Your task to perform on an android device: Go to accessibility settings Image 0: 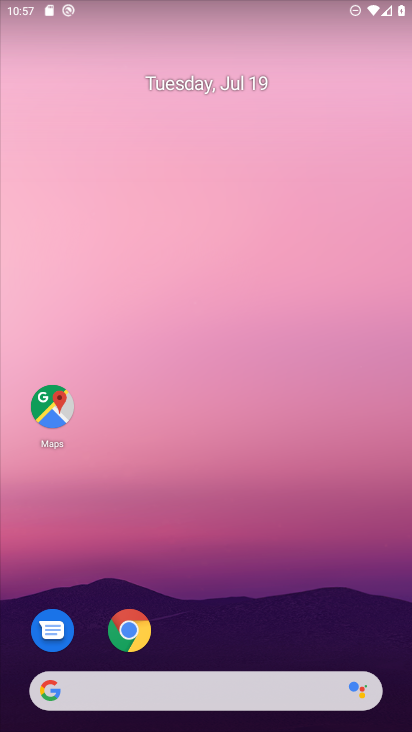
Step 0: drag from (209, 684) to (175, 277)
Your task to perform on an android device: Go to accessibility settings Image 1: 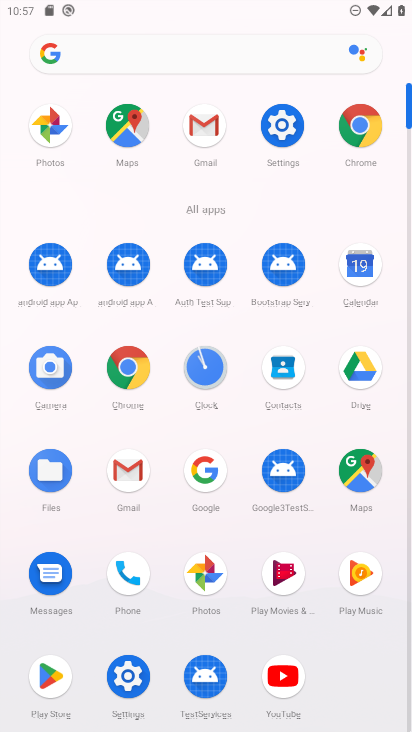
Step 1: click (131, 690)
Your task to perform on an android device: Go to accessibility settings Image 2: 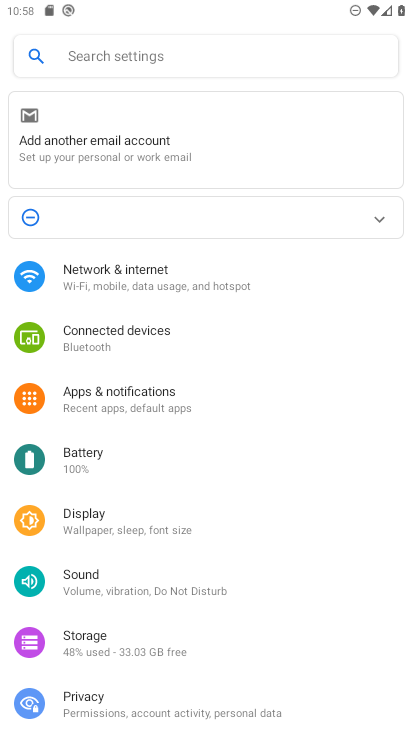
Step 2: drag from (131, 690) to (208, 48)
Your task to perform on an android device: Go to accessibility settings Image 3: 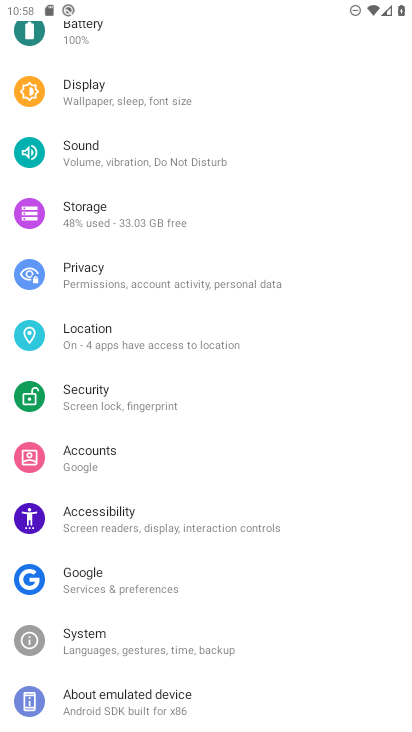
Step 3: click (115, 520)
Your task to perform on an android device: Go to accessibility settings Image 4: 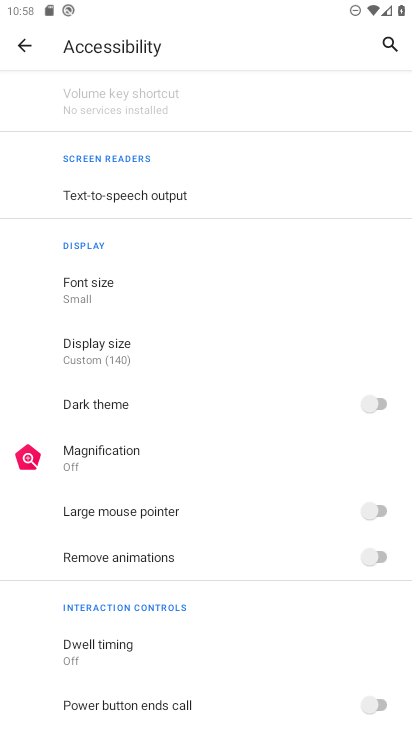
Step 4: task complete